Your task to perform on an android device: turn on improve location accuracy Image 0: 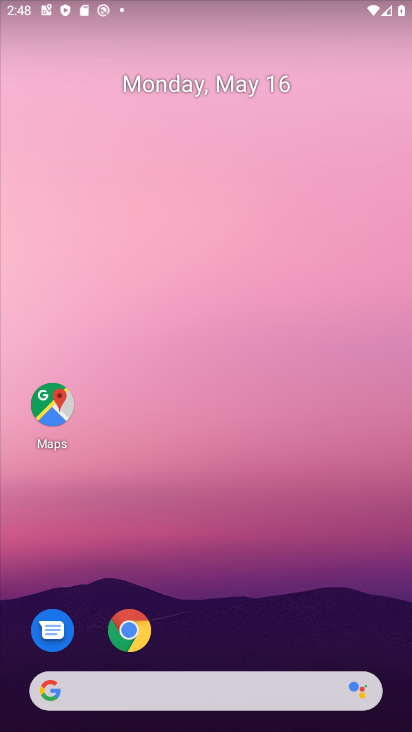
Step 0: drag from (214, 347) to (246, 53)
Your task to perform on an android device: turn on improve location accuracy Image 1: 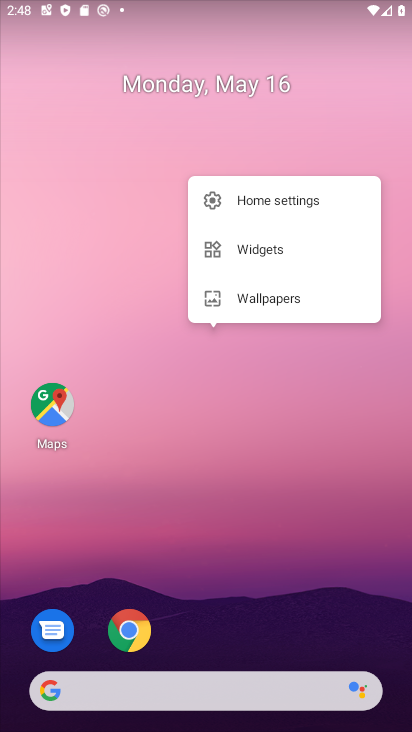
Step 1: click (222, 76)
Your task to perform on an android device: turn on improve location accuracy Image 2: 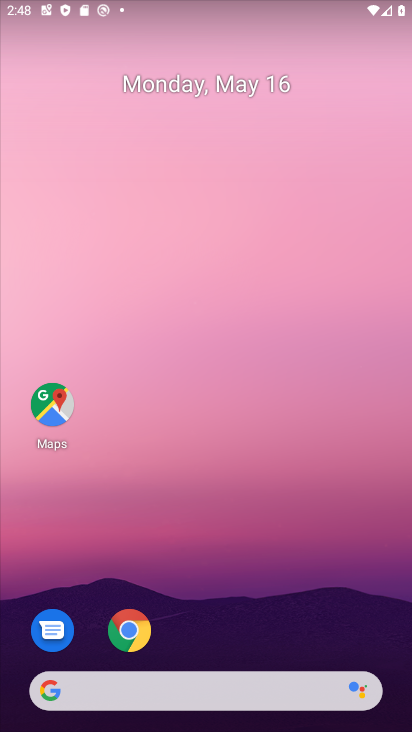
Step 2: click (251, 491)
Your task to perform on an android device: turn on improve location accuracy Image 3: 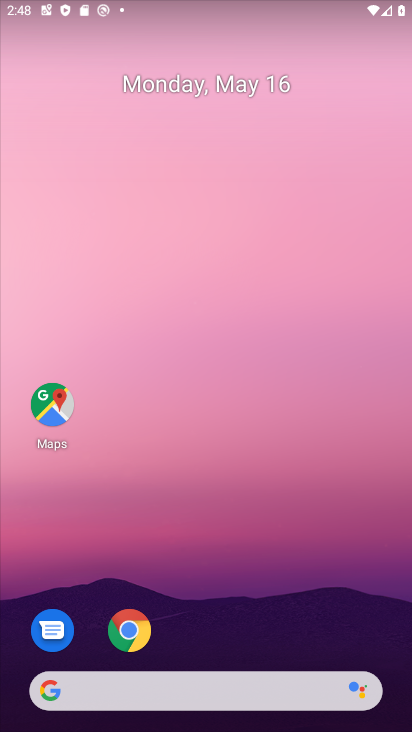
Step 3: drag from (203, 397) to (192, 128)
Your task to perform on an android device: turn on improve location accuracy Image 4: 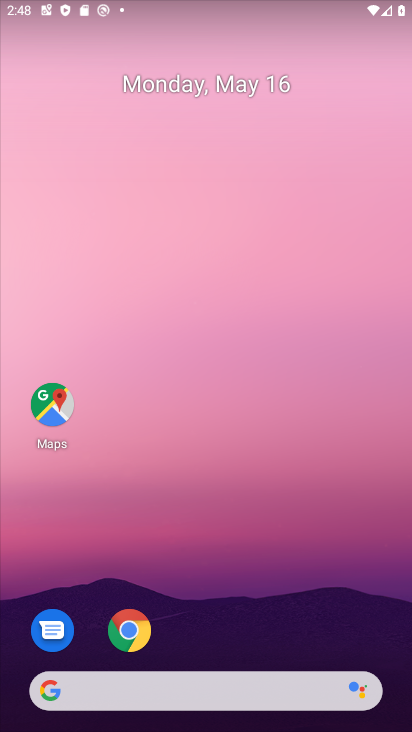
Step 4: drag from (228, 613) to (287, 22)
Your task to perform on an android device: turn on improve location accuracy Image 5: 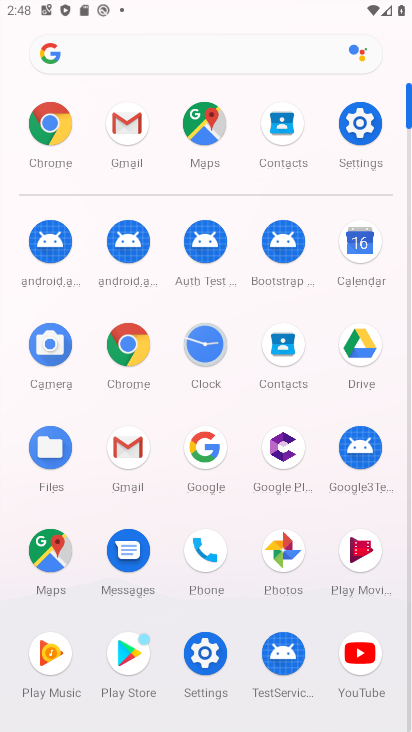
Step 5: click (355, 115)
Your task to perform on an android device: turn on improve location accuracy Image 6: 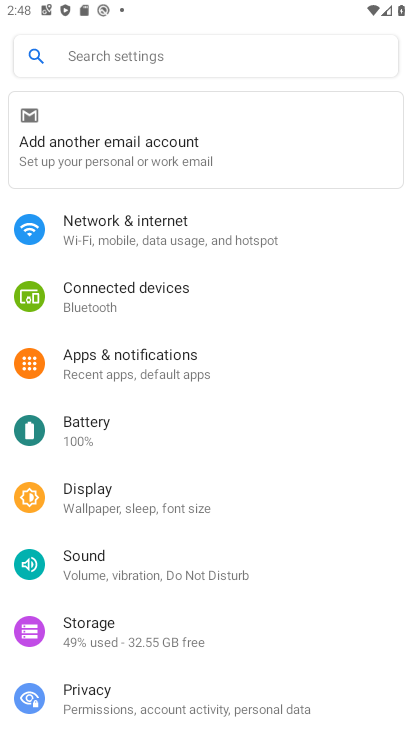
Step 6: drag from (155, 657) to (182, 230)
Your task to perform on an android device: turn on improve location accuracy Image 7: 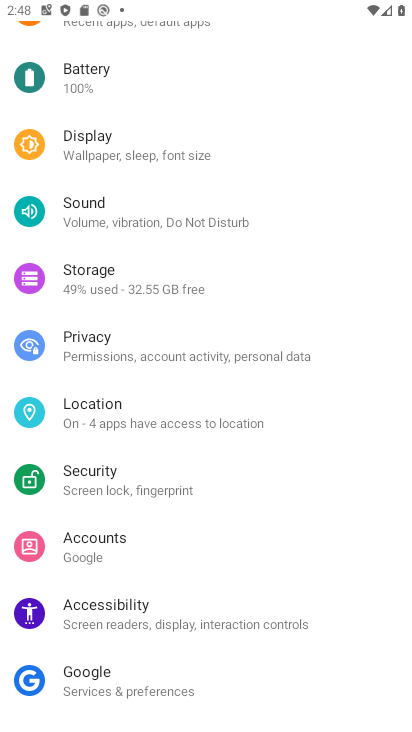
Step 7: click (131, 569)
Your task to perform on an android device: turn on improve location accuracy Image 8: 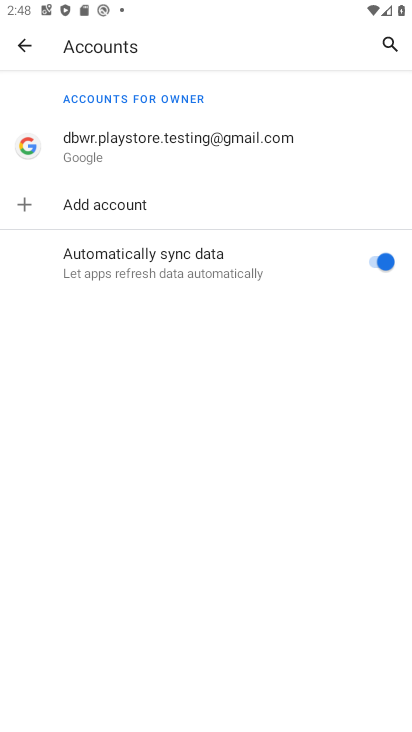
Step 8: click (20, 52)
Your task to perform on an android device: turn on improve location accuracy Image 9: 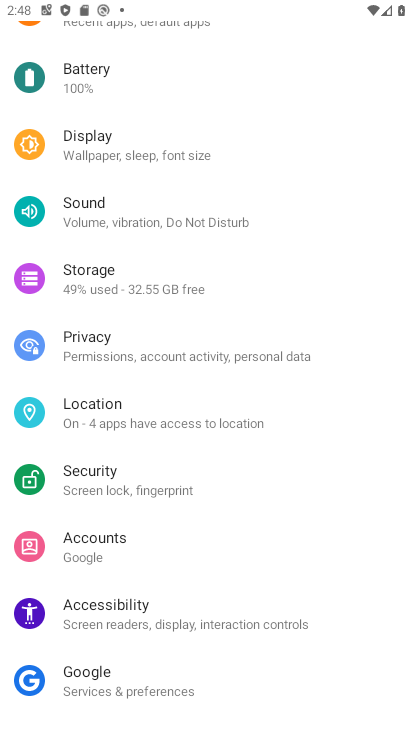
Step 9: click (133, 401)
Your task to perform on an android device: turn on improve location accuracy Image 10: 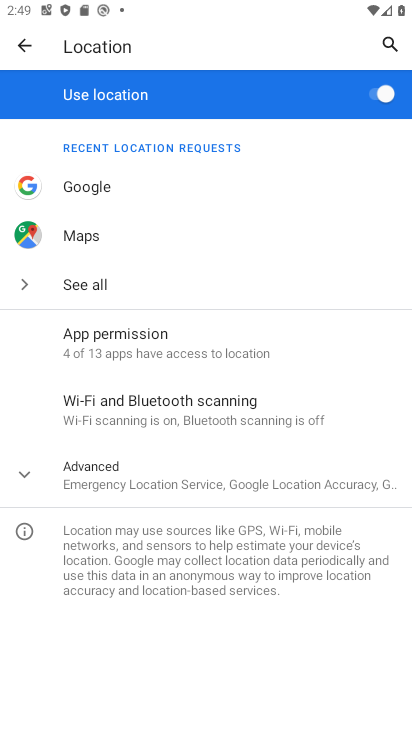
Step 10: click (22, 467)
Your task to perform on an android device: turn on improve location accuracy Image 11: 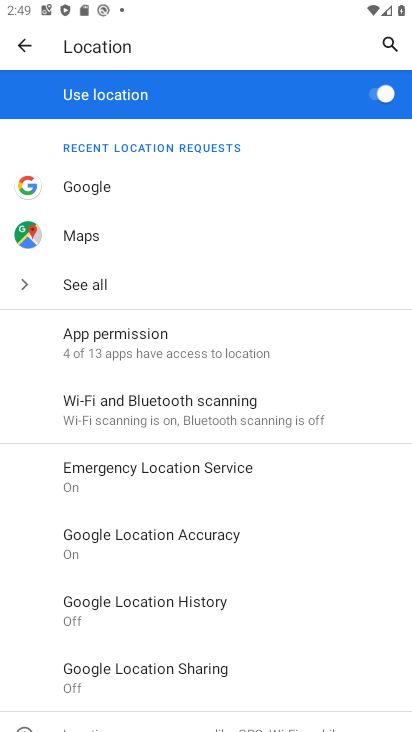
Step 11: click (220, 544)
Your task to perform on an android device: turn on improve location accuracy Image 12: 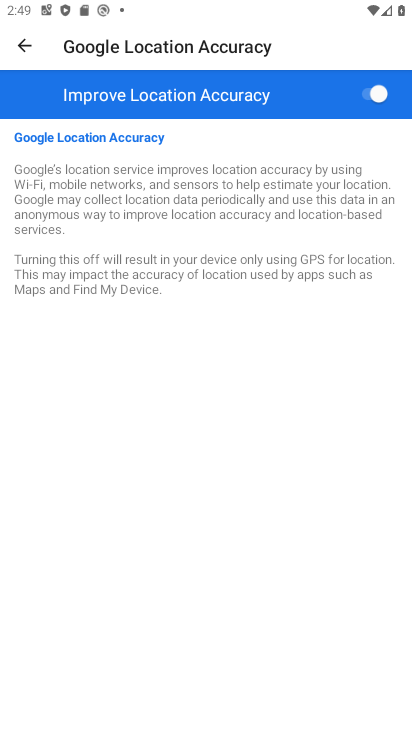
Step 12: task complete